Your task to perform on an android device: open chrome and create a bookmark for the current page Image 0: 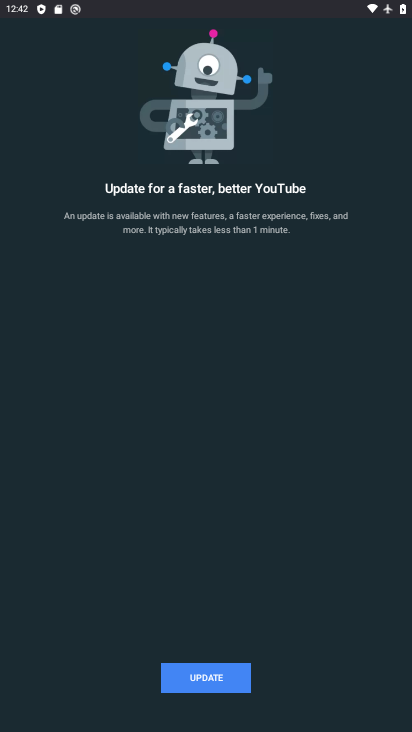
Step 0: press home button
Your task to perform on an android device: open chrome and create a bookmark for the current page Image 1: 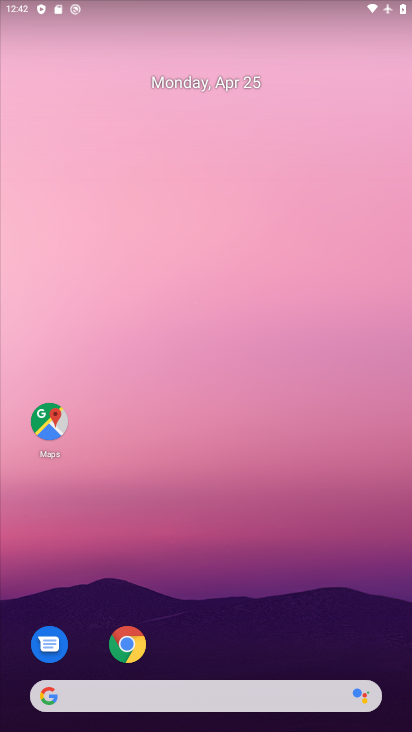
Step 1: task complete